Your task to perform on an android device: Open Google Image 0: 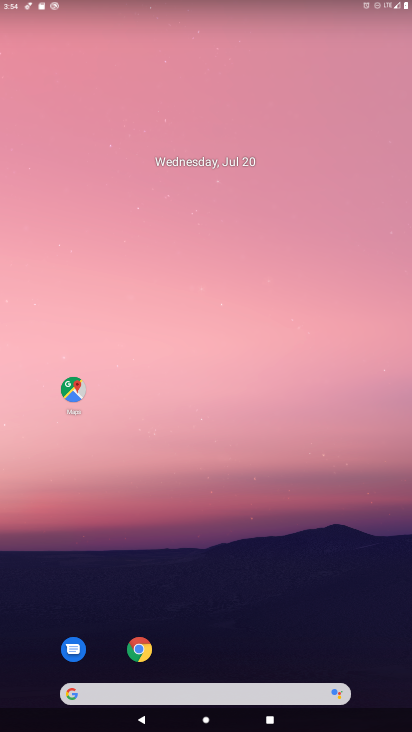
Step 0: drag from (189, 700) to (272, 60)
Your task to perform on an android device: Open Google Image 1: 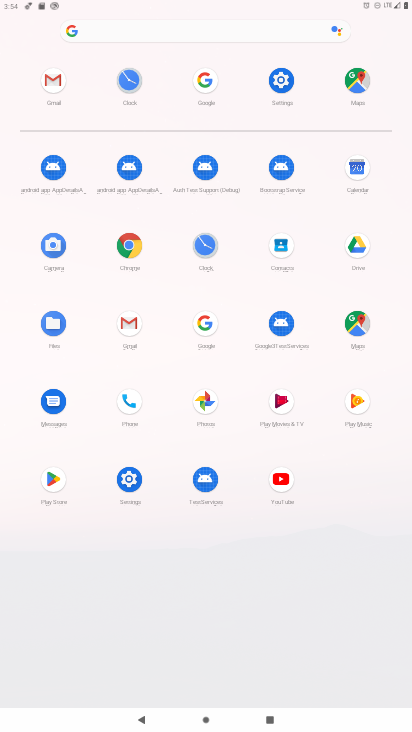
Step 1: click (203, 323)
Your task to perform on an android device: Open Google Image 2: 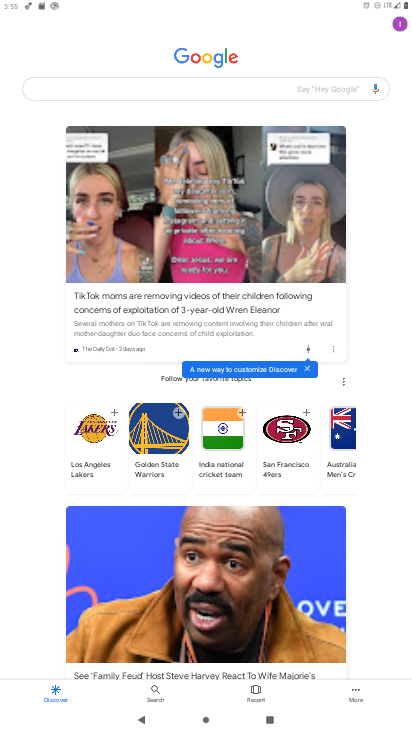
Step 2: task complete